Your task to perform on an android device: Open calendar and show me the third week of next month Image 0: 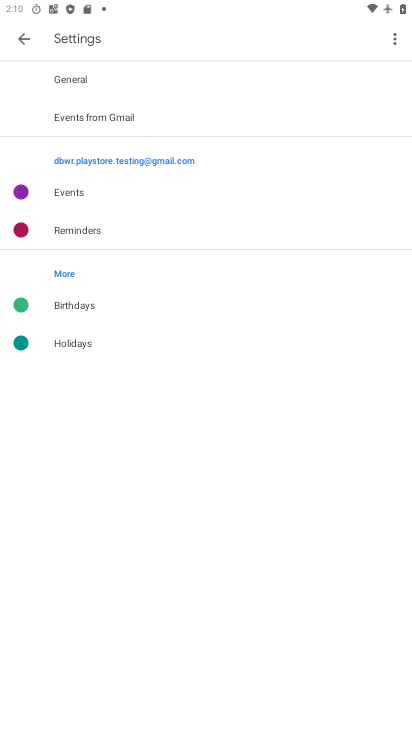
Step 0: press home button
Your task to perform on an android device: Open calendar and show me the third week of next month Image 1: 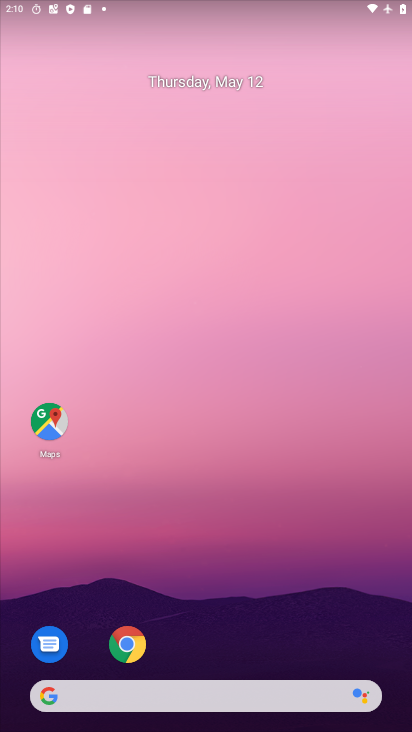
Step 1: drag from (251, 484) to (242, 72)
Your task to perform on an android device: Open calendar and show me the third week of next month Image 2: 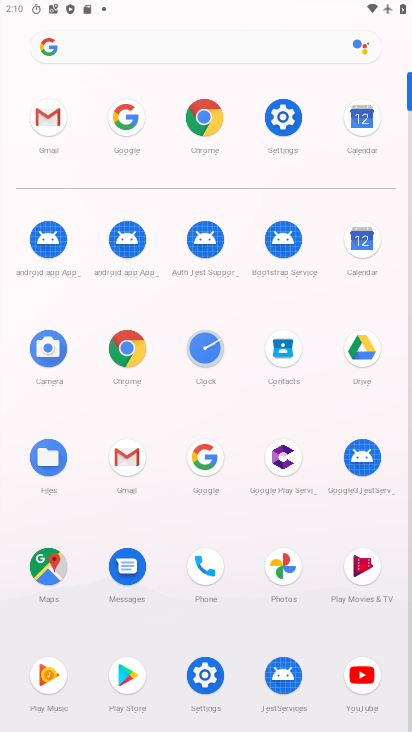
Step 2: click (353, 237)
Your task to perform on an android device: Open calendar and show me the third week of next month Image 3: 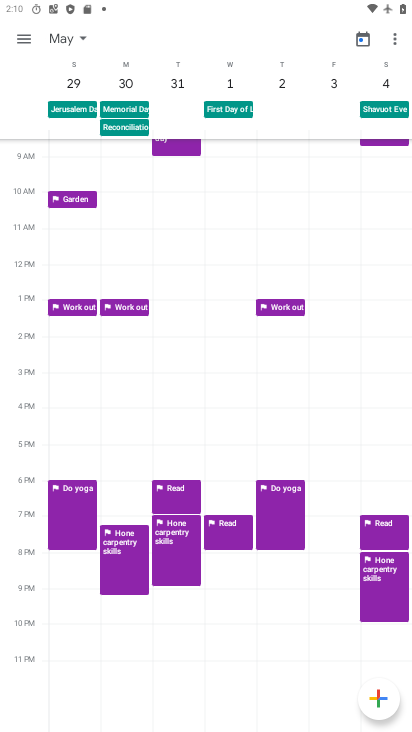
Step 3: click (79, 37)
Your task to perform on an android device: Open calendar and show me the third week of next month Image 4: 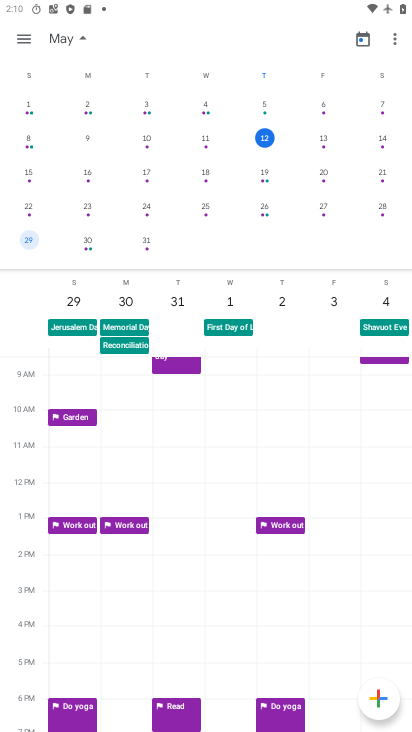
Step 4: click (34, 173)
Your task to perform on an android device: Open calendar and show me the third week of next month Image 5: 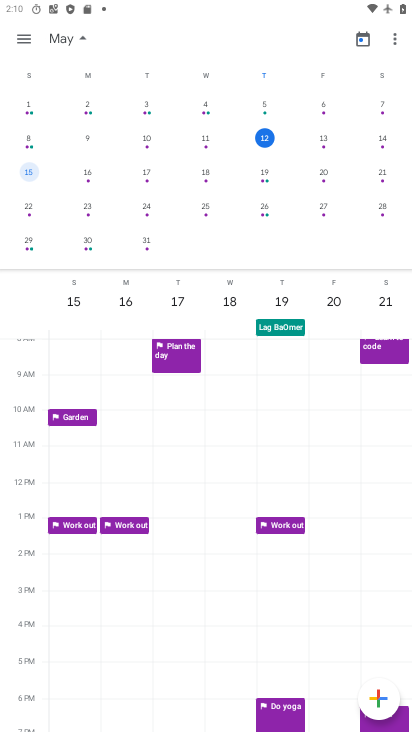
Step 5: click (74, 34)
Your task to perform on an android device: Open calendar and show me the third week of next month Image 6: 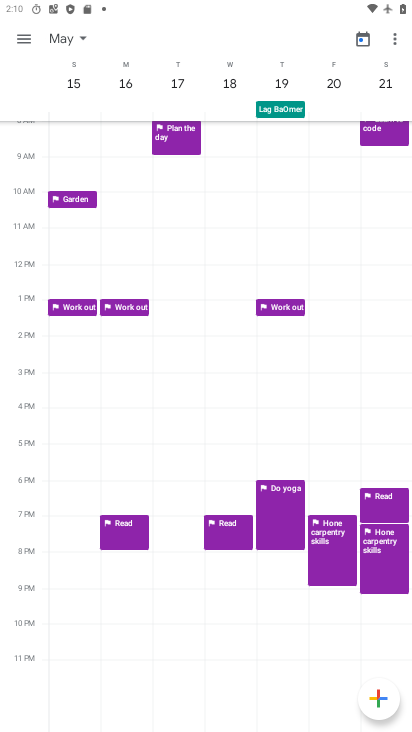
Step 6: click (74, 43)
Your task to perform on an android device: Open calendar and show me the third week of next month Image 7: 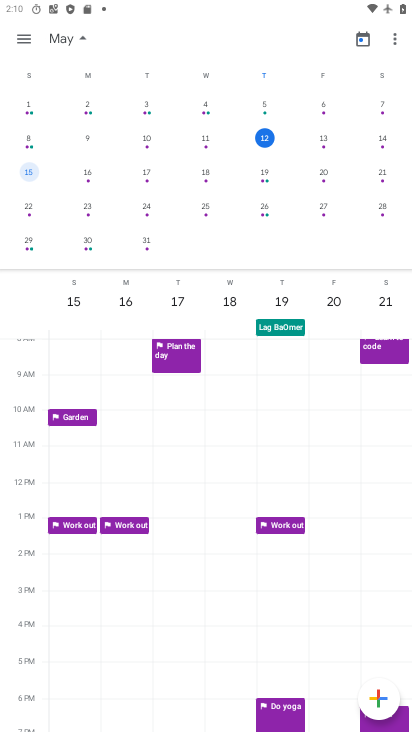
Step 7: drag from (374, 174) to (6, 188)
Your task to perform on an android device: Open calendar and show me the third week of next month Image 8: 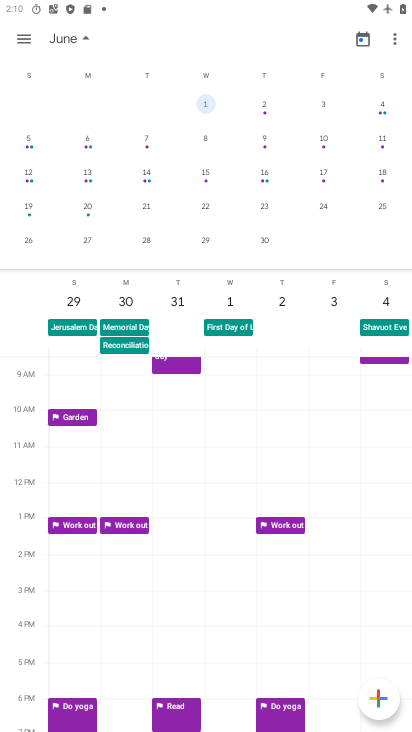
Step 8: click (39, 172)
Your task to perform on an android device: Open calendar and show me the third week of next month Image 9: 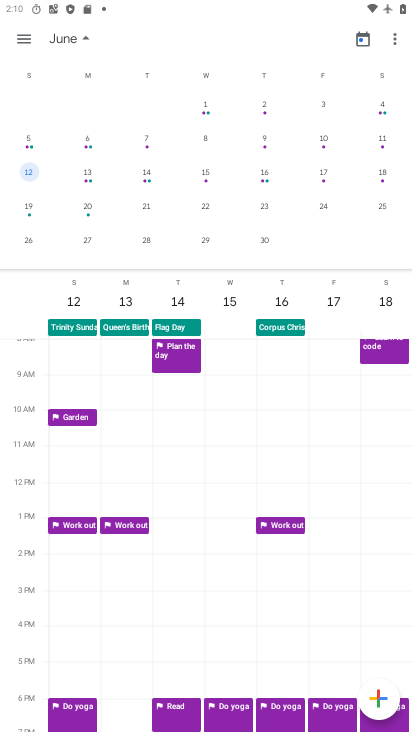
Step 9: task complete